Your task to perform on an android device: Go to internet settings Image 0: 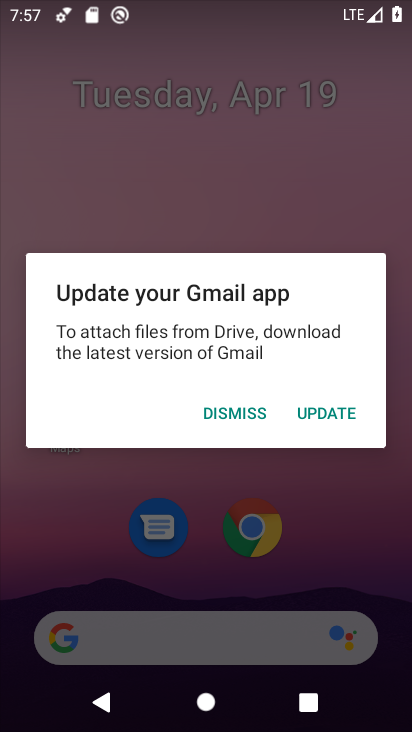
Step 0: press home button
Your task to perform on an android device: Go to internet settings Image 1: 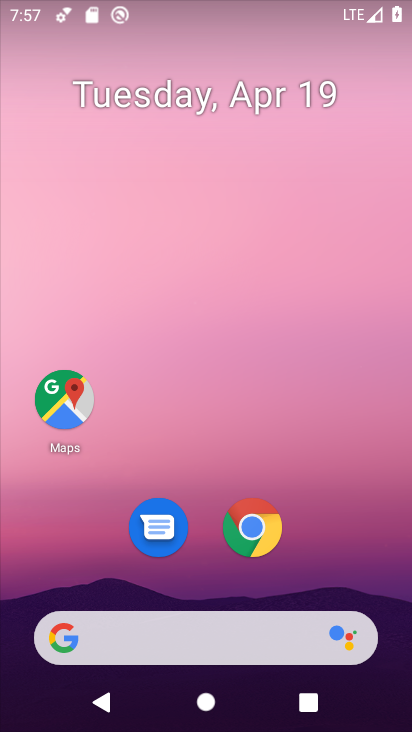
Step 1: drag from (327, 552) to (362, 109)
Your task to perform on an android device: Go to internet settings Image 2: 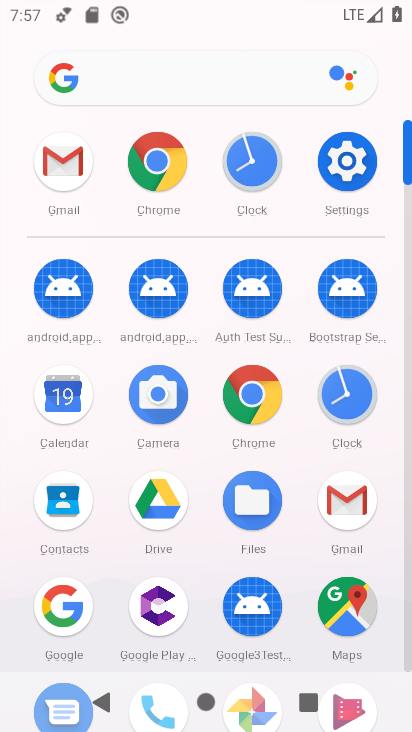
Step 2: click (360, 167)
Your task to perform on an android device: Go to internet settings Image 3: 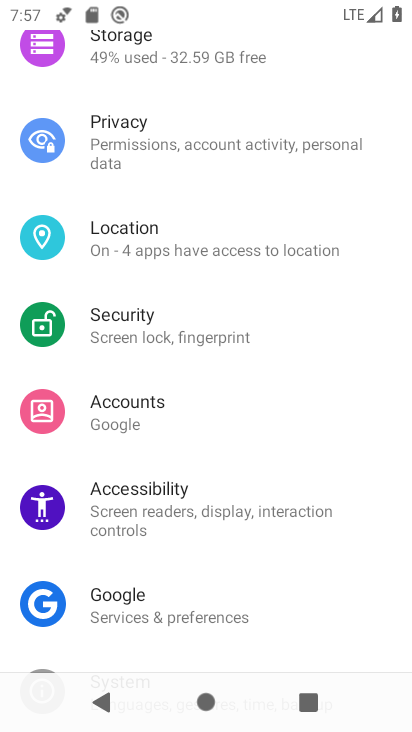
Step 3: drag from (374, 168) to (344, 582)
Your task to perform on an android device: Go to internet settings Image 4: 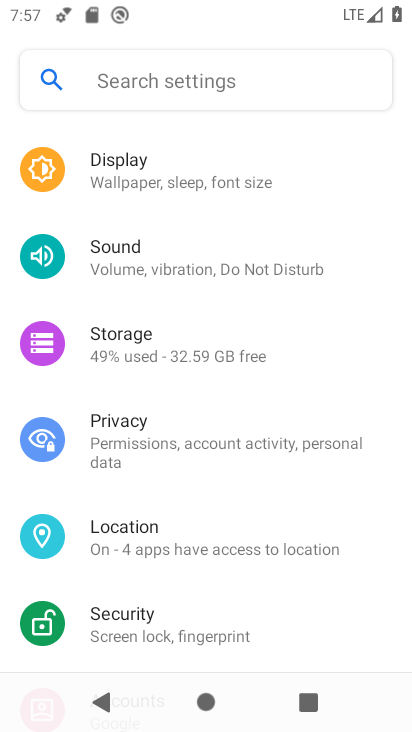
Step 4: drag from (367, 214) to (355, 585)
Your task to perform on an android device: Go to internet settings Image 5: 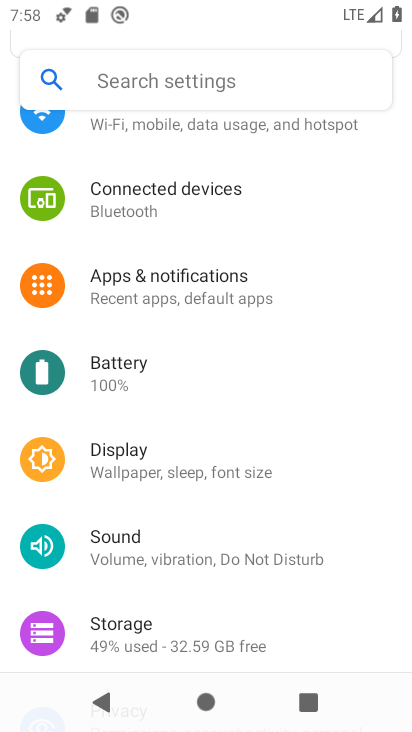
Step 5: drag from (294, 218) to (316, 567)
Your task to perform on an android device: Go to internet settings Image 6: 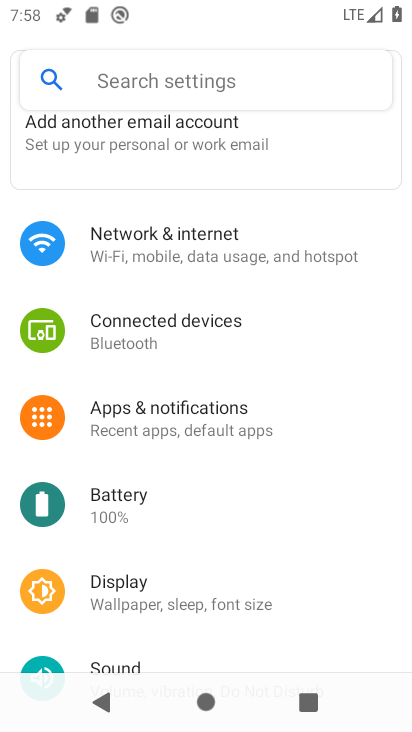
Step 6: click (269, 233)
Your task to perform on an android device: Go to internet settings Image 7: 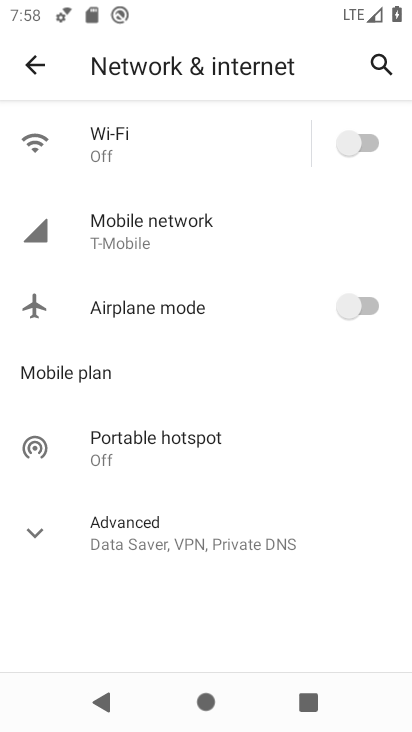
Step 7: click (237, 231)
Your task to perform on an android device: Go to internet settings Image 8: 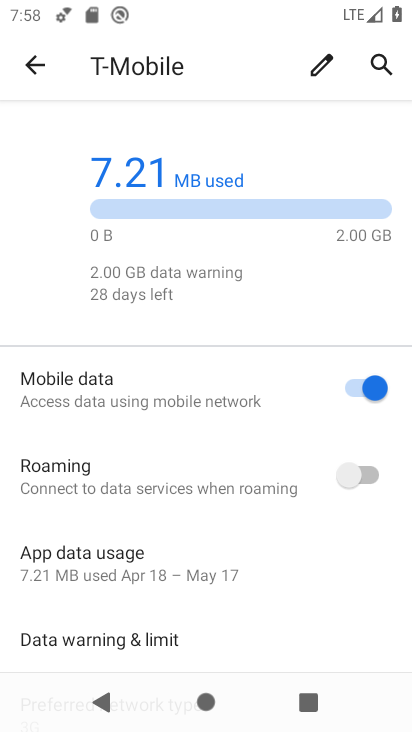
Step 8: task complete